Your task to perform on an android device: What is the news today? Image 0: 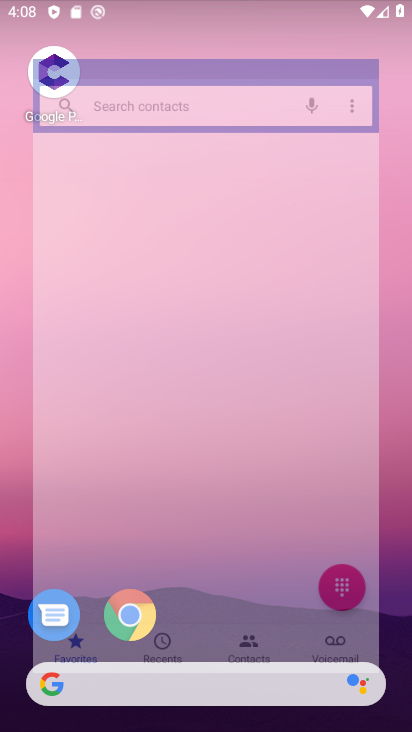
Step 0: drag from (180, 626) to (260, 109)
Your task to perform on an android device: What is the news today? Image 1: 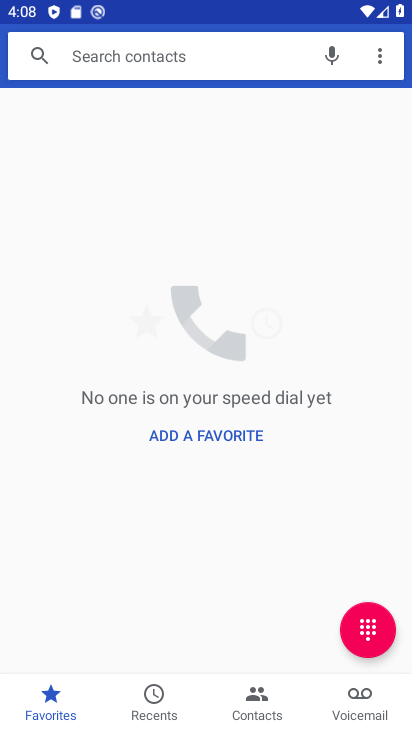
Step 1: press home button
Your task to perform on an android device: What is the news today? Image 2: 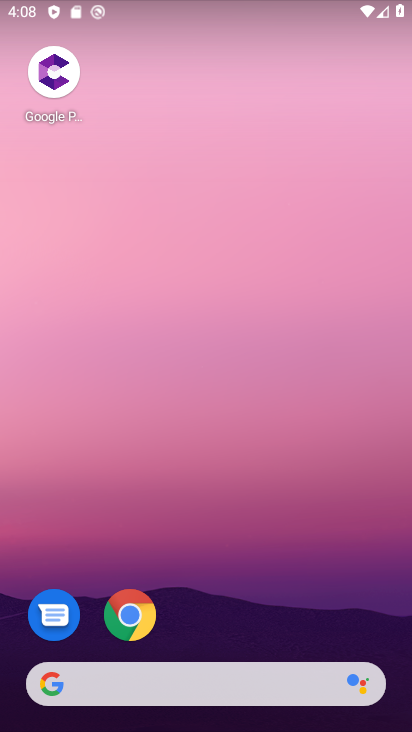
Step 2: drag from (241, 657) to (281, 230)
Your task to perform on an android device: What is the news today? Image 3: 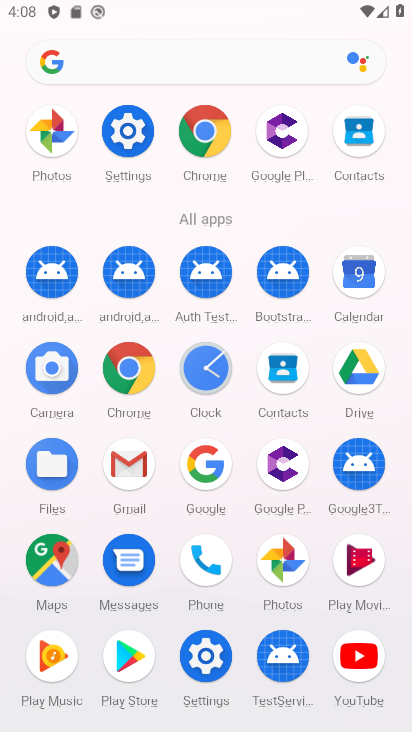
Step 3: click (196, 466)
Your task to perform on an android device: What is the news today? Image 4: 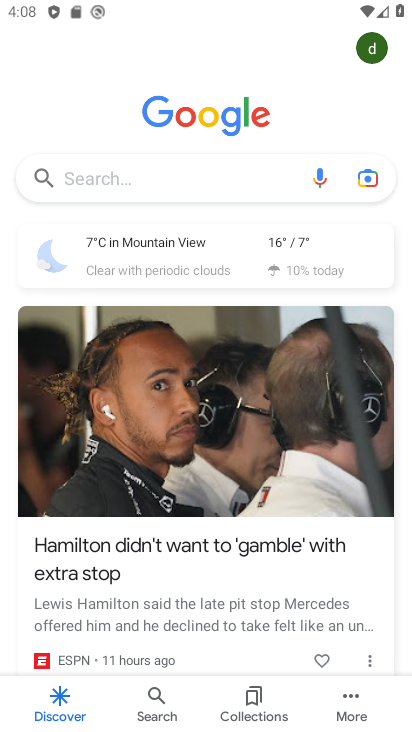
Step 4: click (100, 178)
Your task to perform on an android device: What is the news today? Image 5: 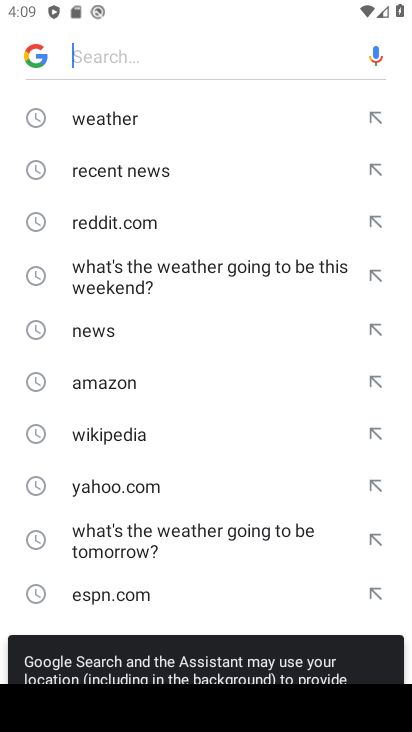
Step 5: drag from (140, 603) to (154, 316)
Your task to perform on an android device: What is the news today? Image 6: 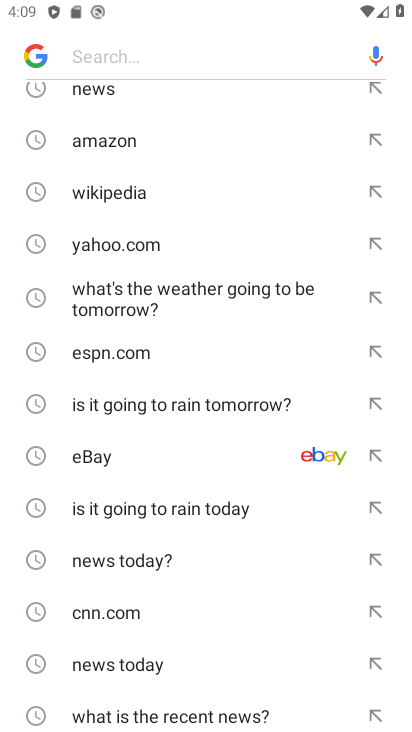
Step 6: click (120, 568)
Your task to perform on an android device: What is the news today? Image 7: 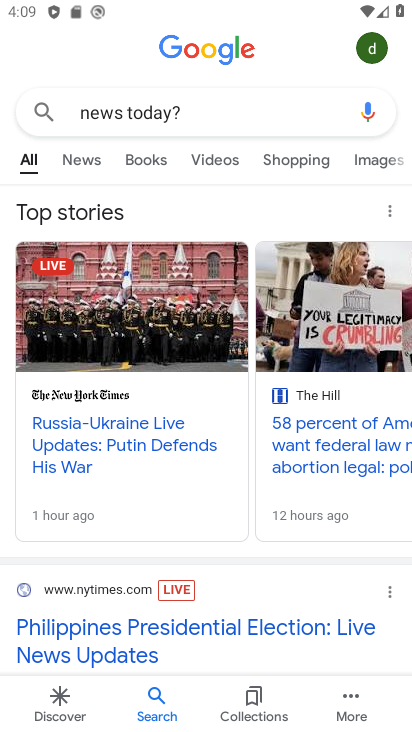
Step 7: task complete